Your task to perform on an android device: Open notification settings Image 0: 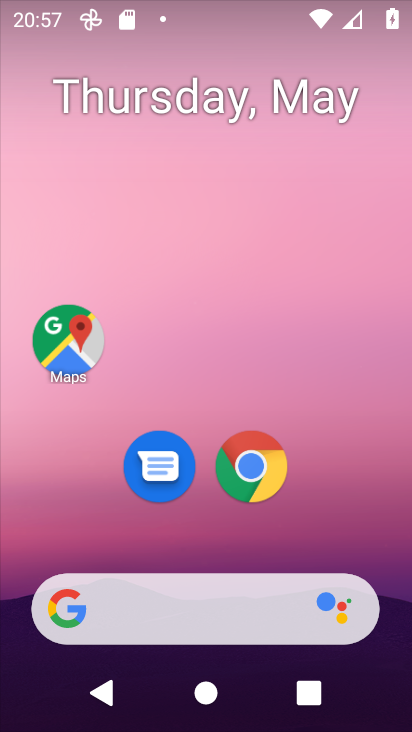
Step 0: drag from (378, 541) to (333, 304)
Your task to perform on an android device: Open notification settings Image 1: 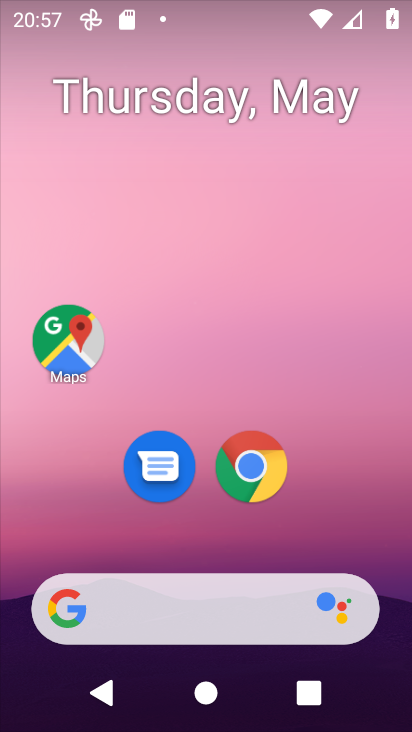
Step 1: drag from (352, 486) to (294, 44)
Your task to perform on an android device: Open notification settings Image 2: 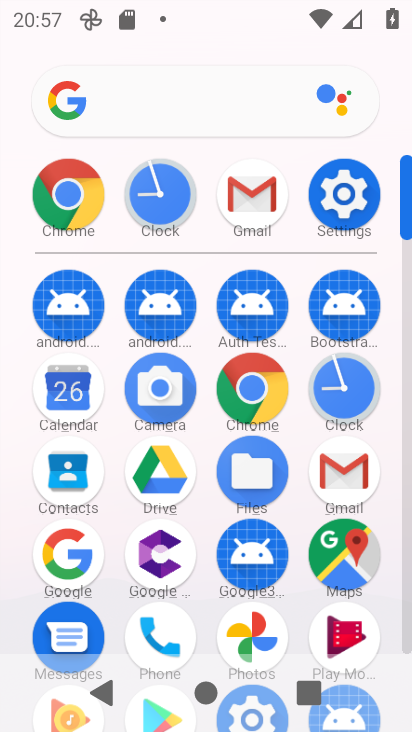
Step 2: click (328, 173)
Your task to perform on an android device: Open notification settings Image 3: 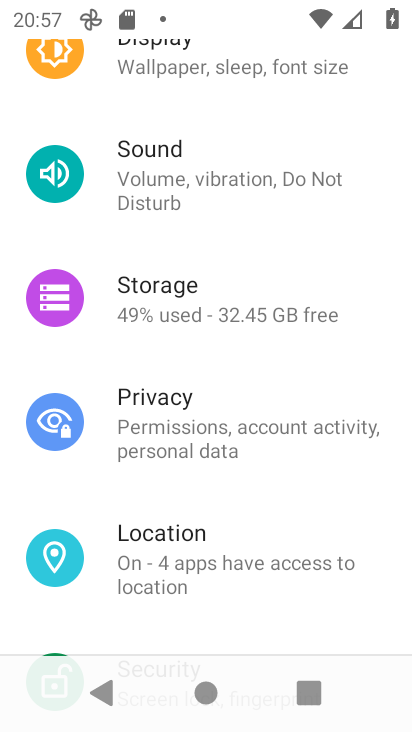
Step 3: drag from (257, 217) to (314, 684)
Your task to perform on an android device: Open notification settings Image 4: 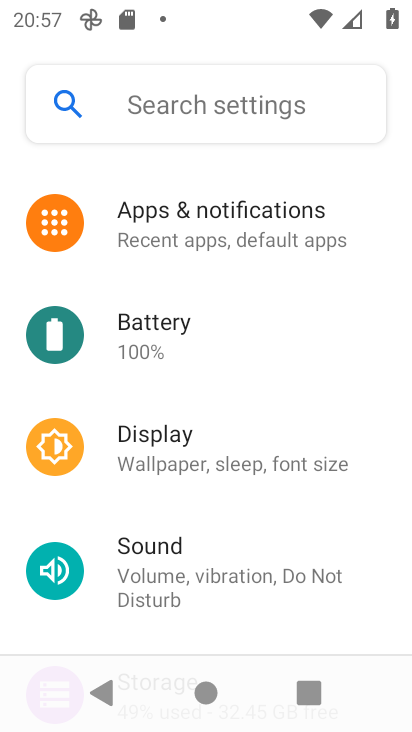
Step 4: click (177, 44)
Your task to perform on an android device: Open notification settings Image 5: 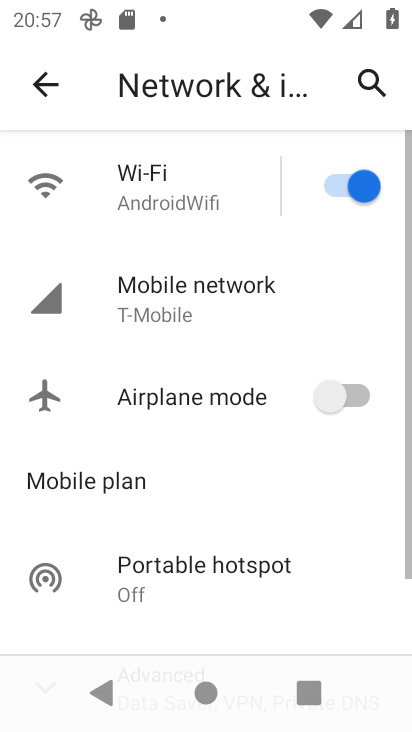
Step 5: task complete